Your task to perform on an android device: Go to Yahoo.com Image 0: 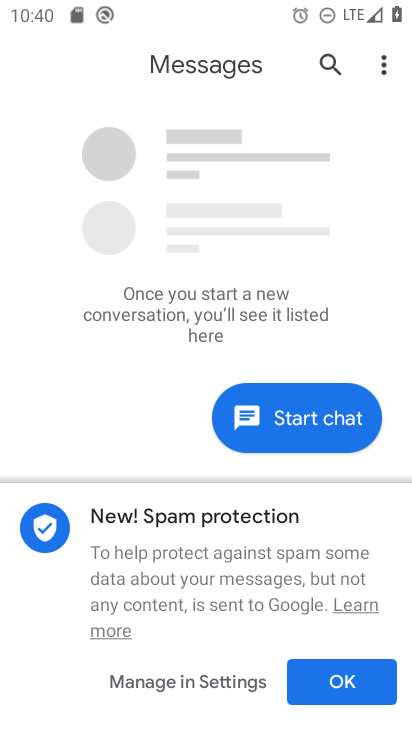
Step 0: press home button
Your task to perform on an android device: Go to Yahoo.com Image 1: 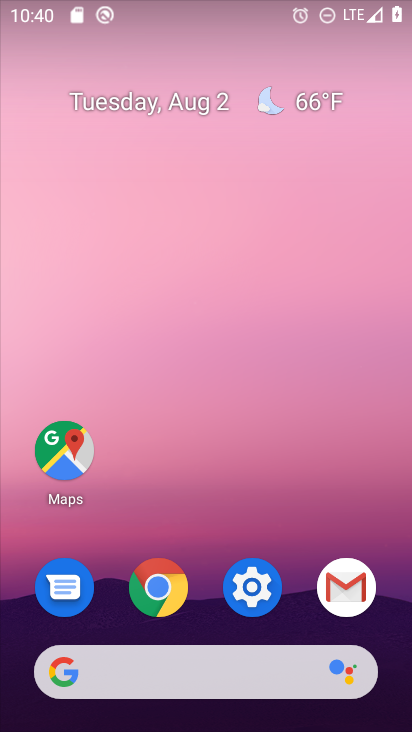
Step 1: click (161, 604)
Your task to perform on an android device: Go to Yahoo.com Image 2: 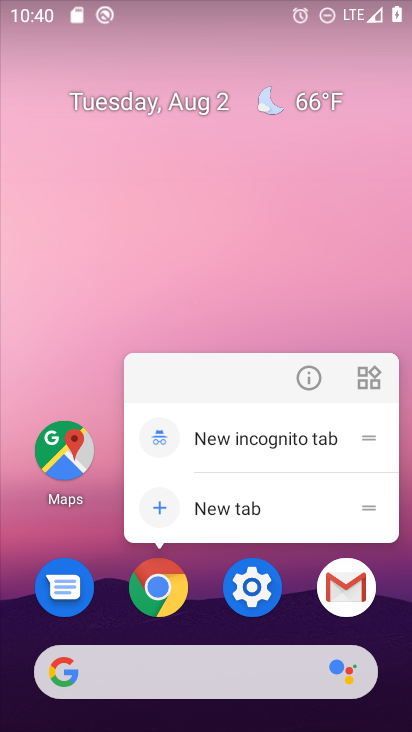
Step 2: click (169, 590)
Your task to perform on an android device: Go to Yahoo.com Image 3: 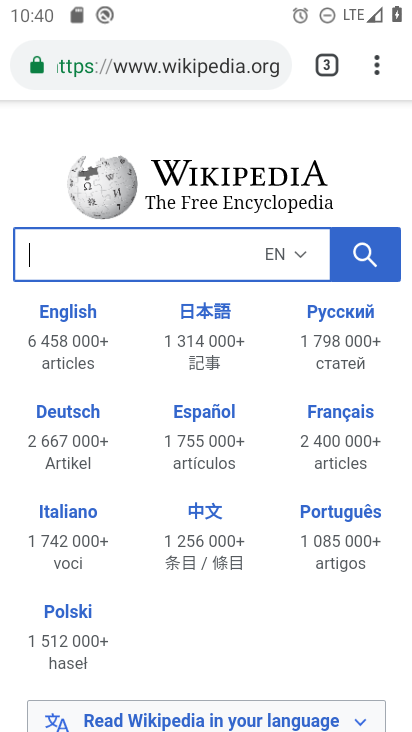
Step 3: click (339, 62)
Your task to perform on an android device: Go to Yahoo.com Image 4: 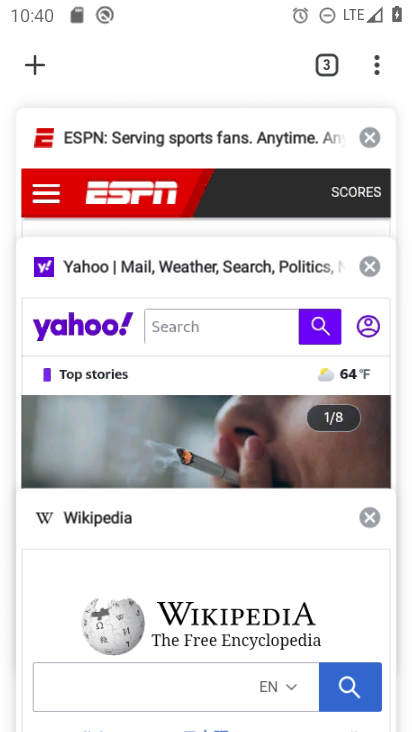
Step 4: click (48, 62)
Your task to perform on an android device: Go to Yahoo.com Image 5: 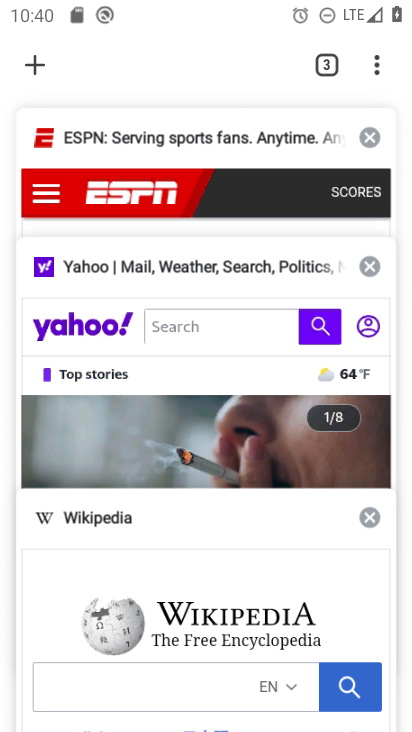
Step 5: click (35, 55)
Your task to perform on an android device: Go to Yahoo.com Image 6: 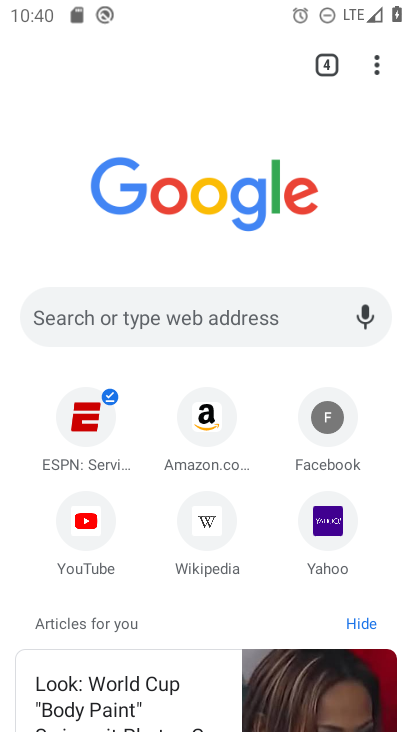
Step 6: click (324, 536)
Your task to perform on an android device: Go to Yahoo.com Image 7: 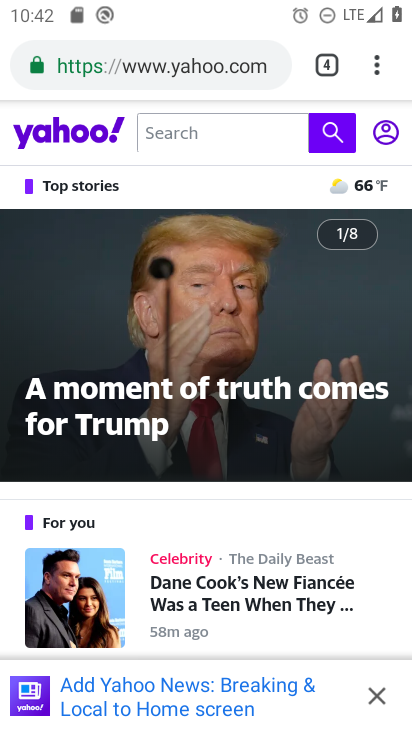
Step 7: task complete